Your task to perform on an android device: Play the last video I watched on Youtube Image 0: 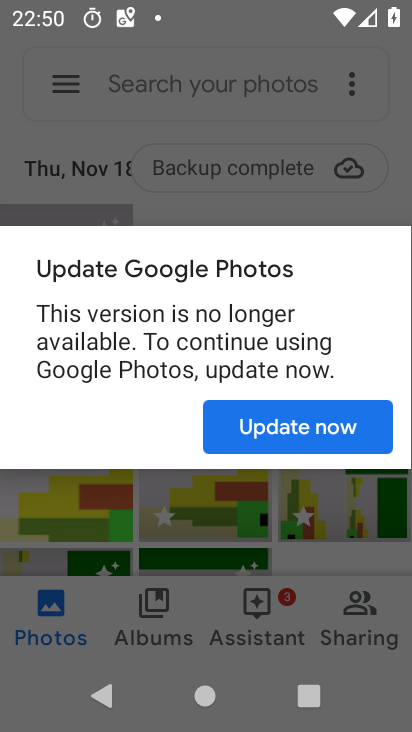
Step 0: press home button
Your task to perform on an android device: Play the last video I watched on Youtube Image 1: 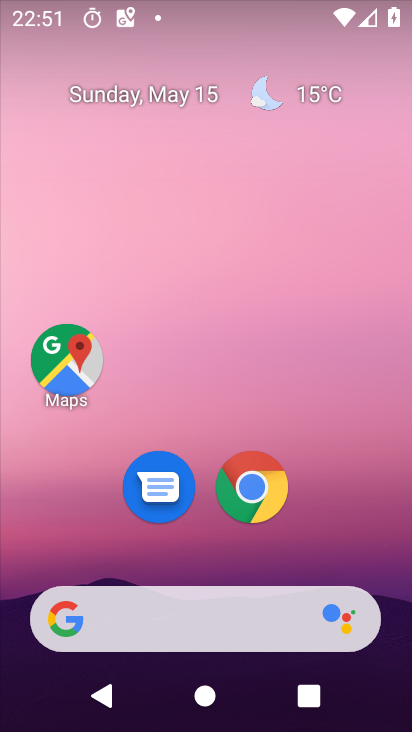
Step 1: click (403, 295)
Your task to perform on an android device: Play the last video I watched on Youtube Image 2: 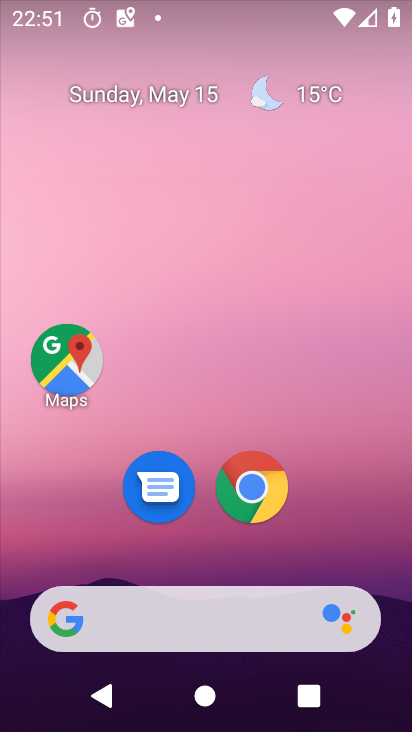
Step 2: drag from (393, 661) to (368, 263)
Your task to perform on an android device: Play the last video I watched on Youtube Image 3: 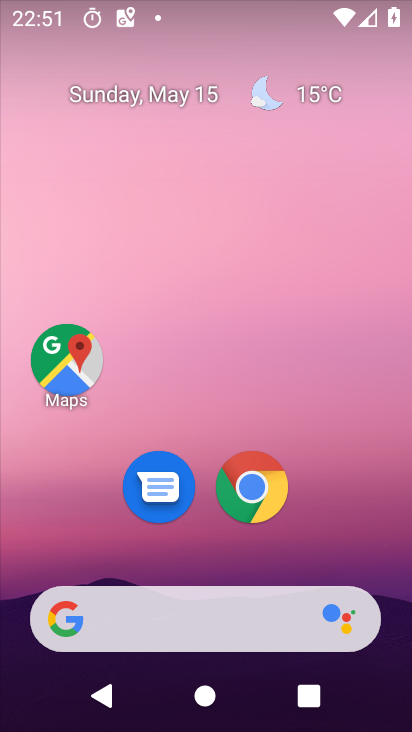
Step 3: drag from (352, 352) to (334, 153)
Your task to perform on an android device: Play the last video I watched on Youtube Image 4: 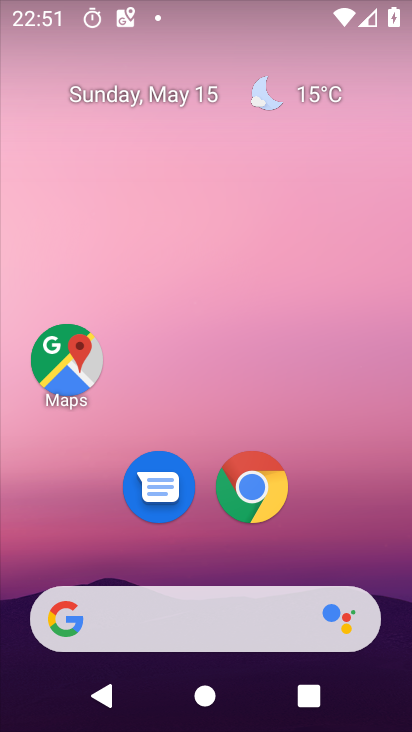
Step 4: drag from (402, 659) to (405, 172)
Your task to perform on an android device: Play the last video I watched on Youtube Image 5: 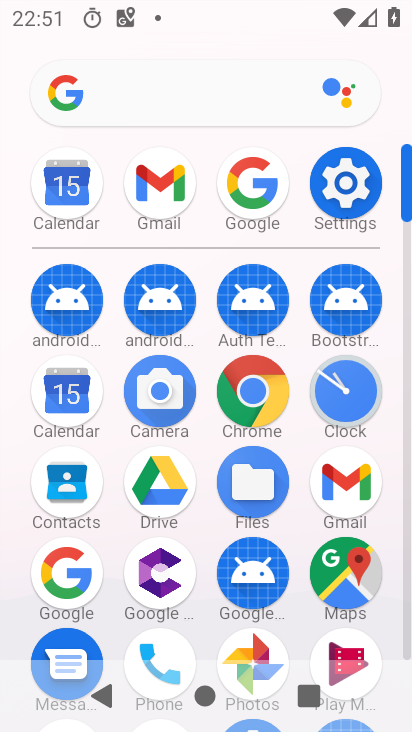
Step 5: click (407, 109)
Your task to perform on an android device: Play the last video I watched on Youtube Image 6: 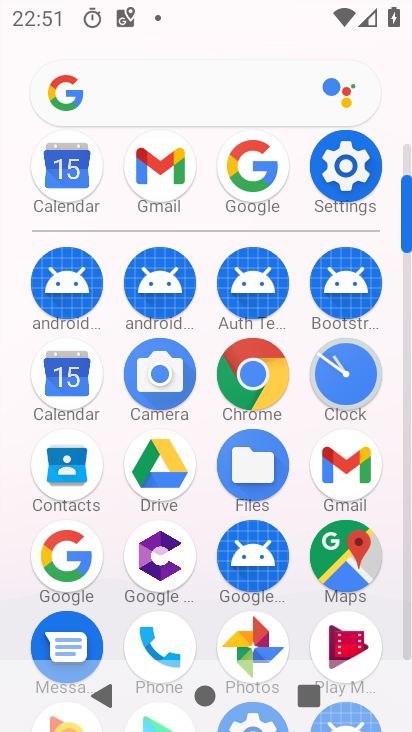
Step 6: drag from (404, 182) to (407, 123)
Your task to perform on an android device: Play the last video I watched on Youtube Image 7: 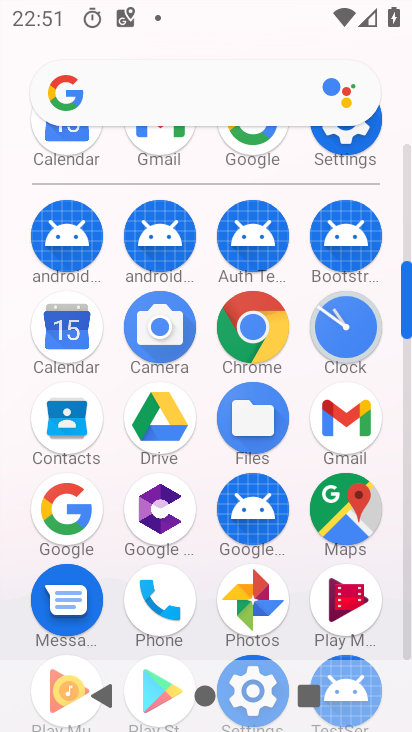
Step 7: click (391, 174)
Your task to perform on an android device: Play the last video I watched on Youtube Image 8: 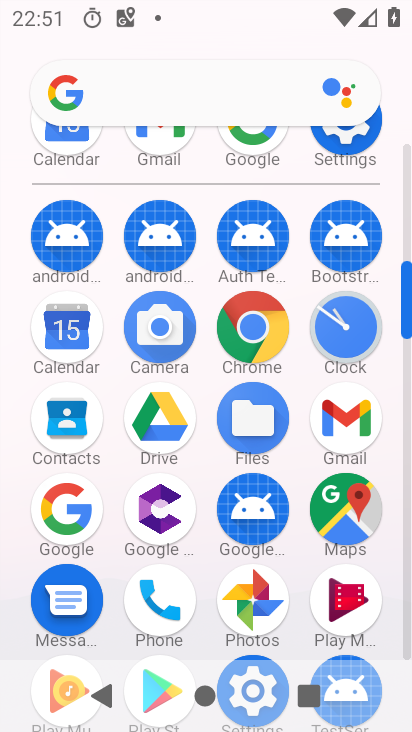
Step 8: click (400, 169)
Your task to perform on an android device: Play the last video I watched on Youtube Image 9: 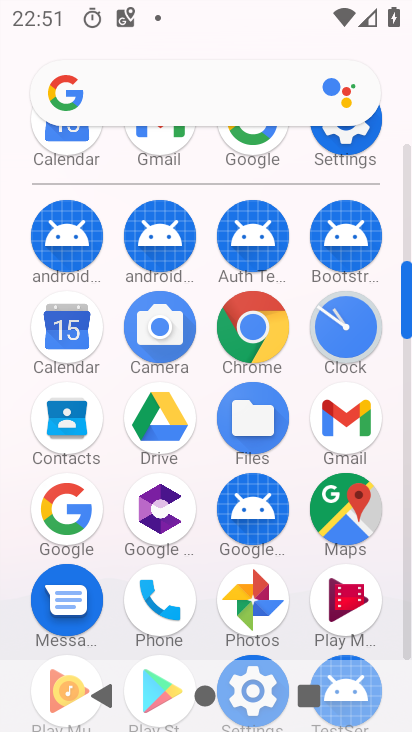
Step 9: drag from (409, 272) to (410, 147)
Your task to perform on an android device: Play the last video I watched on Youtube Image 10: 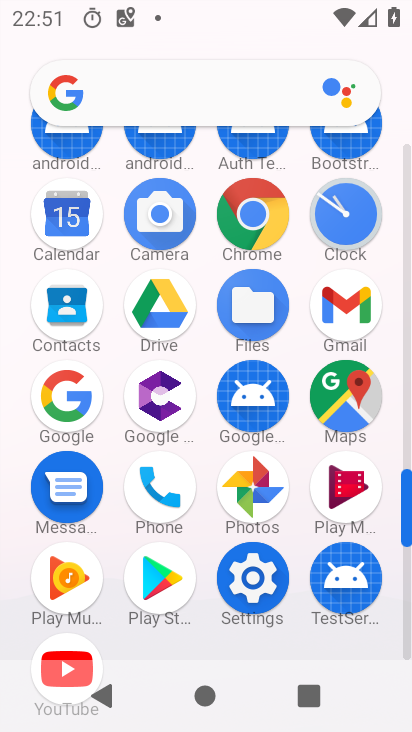
Step 10: drag from (403, 469) to (401, 374)
Your task to perform on an android device: Play the last video I watched on Youtube Image 11: 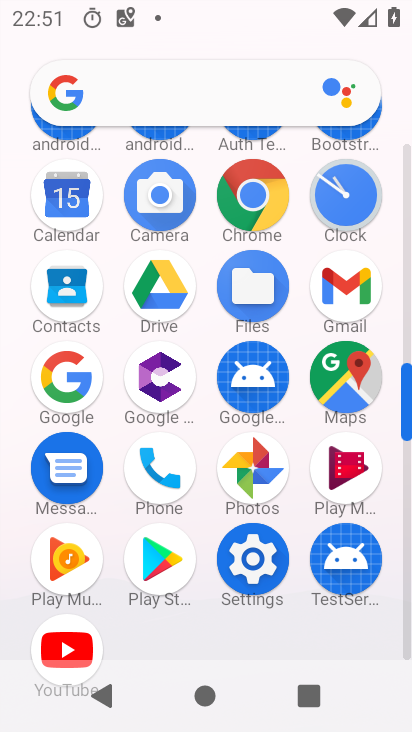
Step 11: click (66, 639)
Your task to perform on an android device: Play the last video I watched on Youtube Image 12: 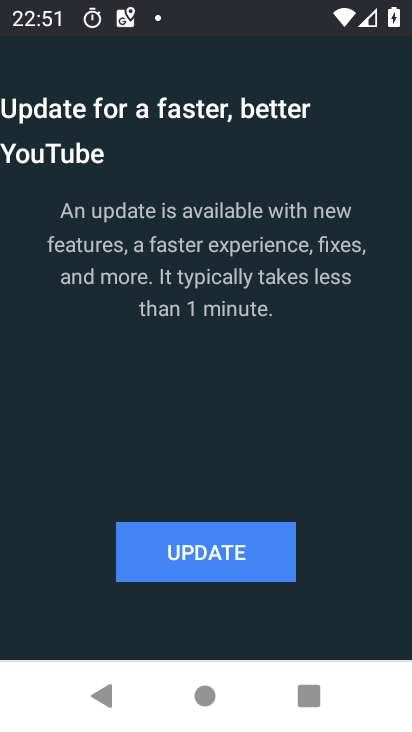
Step 12: click (192, 540)
Your task to perform on an android device: Play the last video I watched on Youtube Image 13: 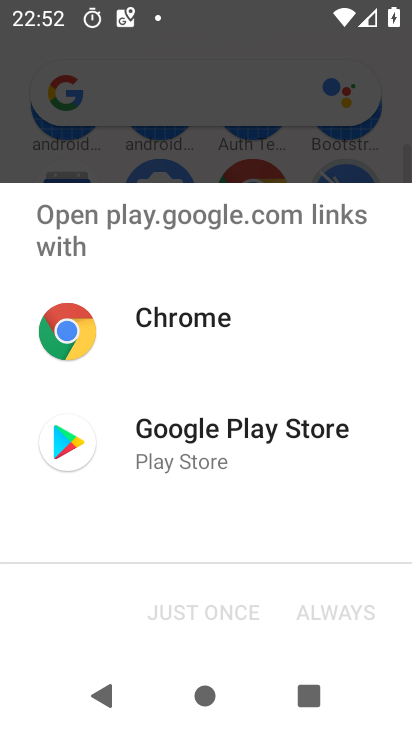
Step 13: click (173, 422)
Your task to perform on an android device: Play the last video I watched on Youtube Image 14: 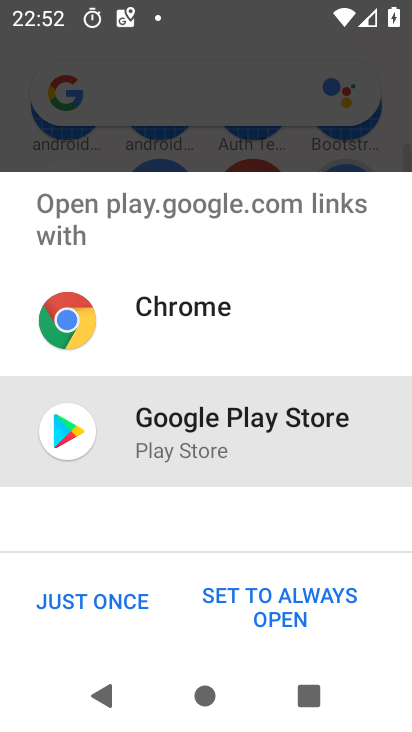
Step 14: click (98, 585)
Your task to perform on an android device: Play the last video I watched on Youtube Image 15: 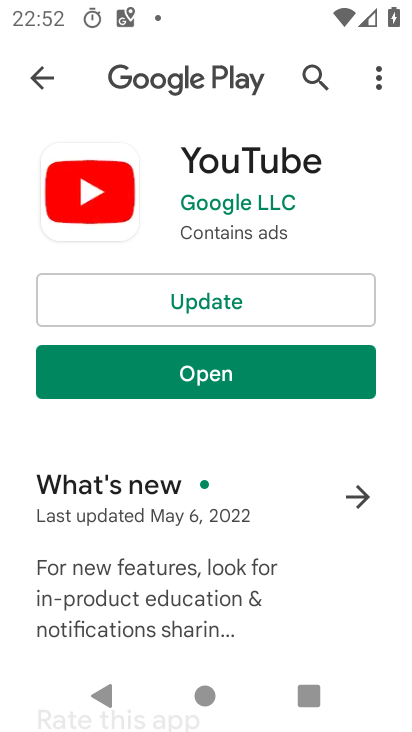
Step 15: click (213, 308)
Your task to perform on an android device: Play the last video I watched on Youtube Image 16: 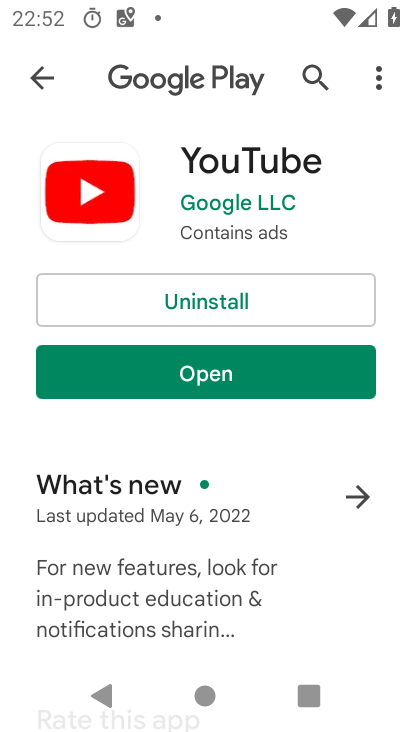
Step 16: click (296, 365)
Your task to perform on an android device: Play the last video I watched on Youtube Image 17: 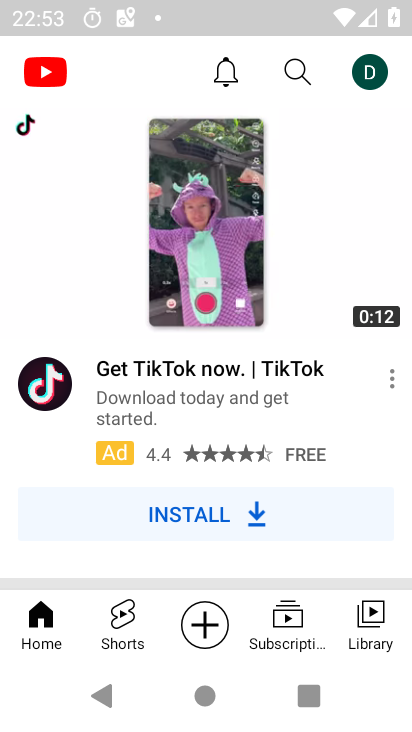
Step 17: click (354, 626)
Your task to perform on an android device: Play the last video I watched on Youtube Image 18: 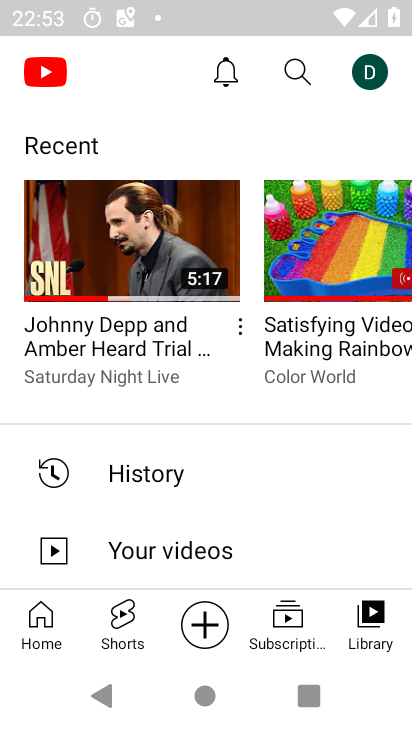
Step 18: click (122, 258)
Your task to perform on an android device: Play the last video I watched on Youtube Image 19: 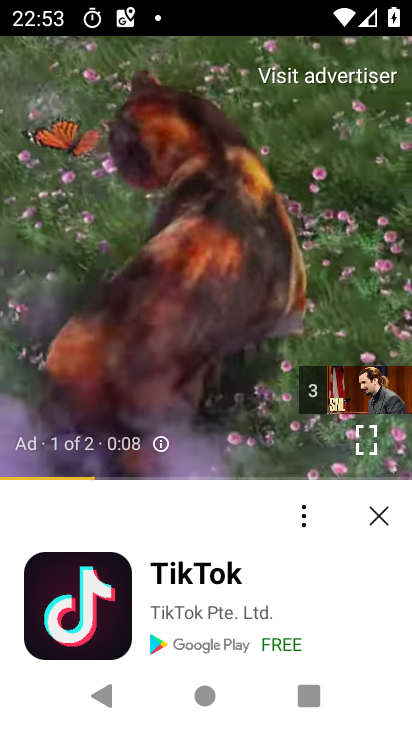
Step 19: task complete